Your task to perform on an android device: Go to eBay Image 0: 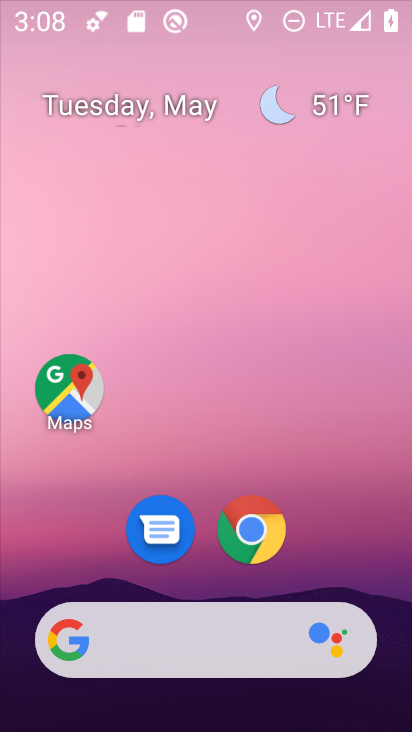
Step 0: drag from (182, 550) to (242, 95)
Your task to perform on an android device: Go to eBay Image 1: 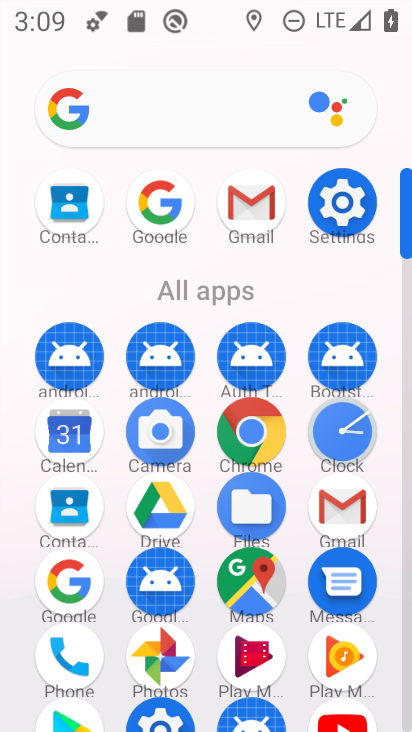
Step 1: click (250, 434)
Your task to perform on an android device: Go to eBay Image 2: 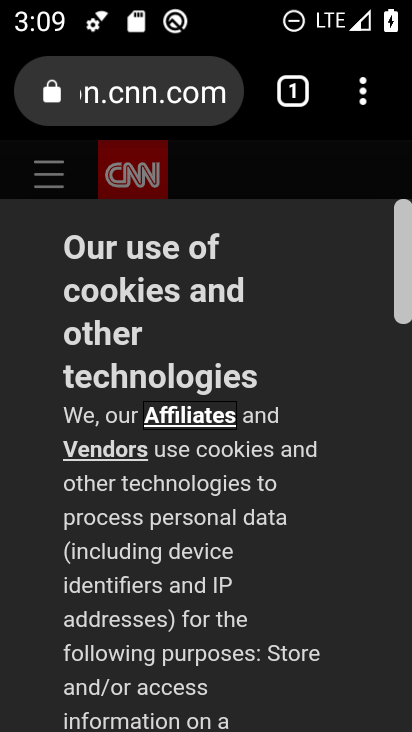
Step 2: click (296, 97)
Your task to perform on an android device: Go to eBay Image 3: 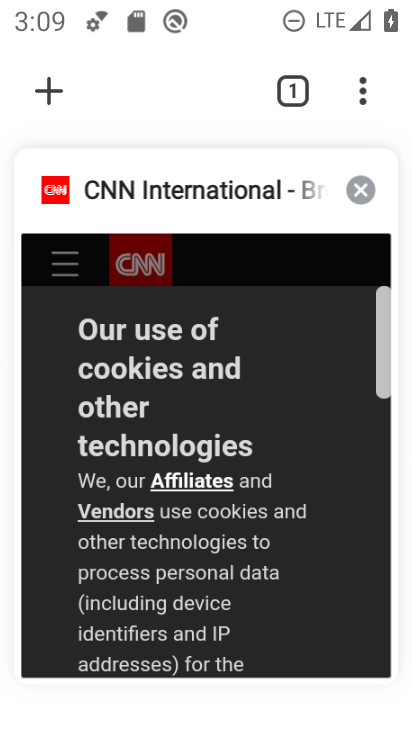
Step 3: click (48, 94)
Your task to perform on an android device: Go to eBay Image 4: 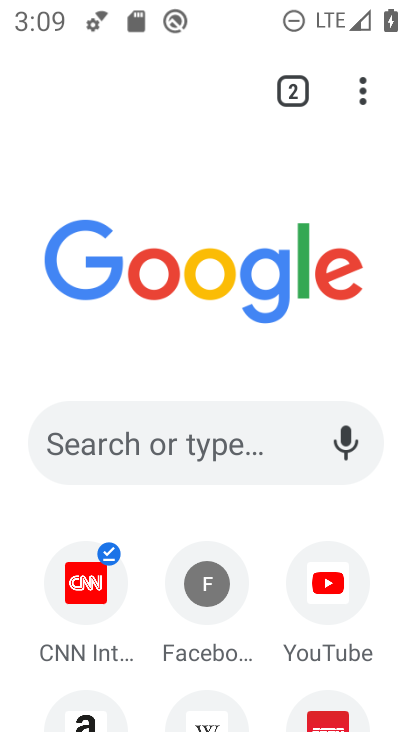
Step 4: drag from (170, 629) to (198, 312)
Your task to perform on an android device: Go to eBay Image 5: 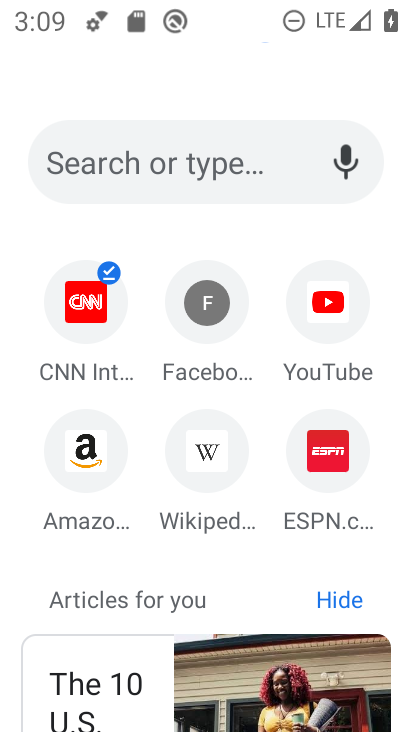
Step 5: click (150, 153)
Your task to perform on an android device: Go to eBay Image 6: 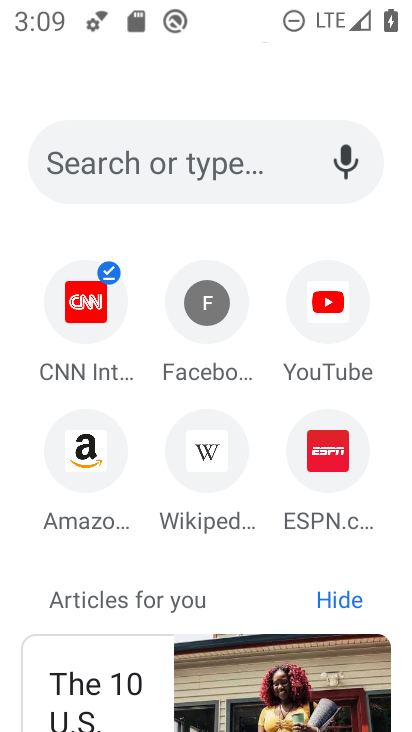
Step 6: type "ebay"
Your task to perform on an android device: Go to eBay Image 7: 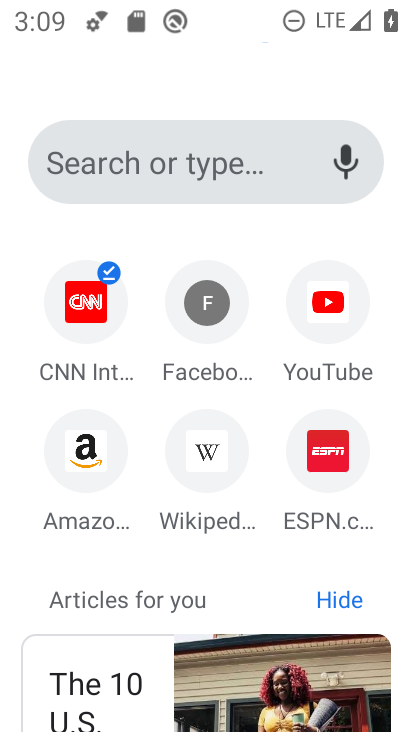
Step 7: click (143, 162)
Your task to perform on an android device: Go to eBay Image 8: 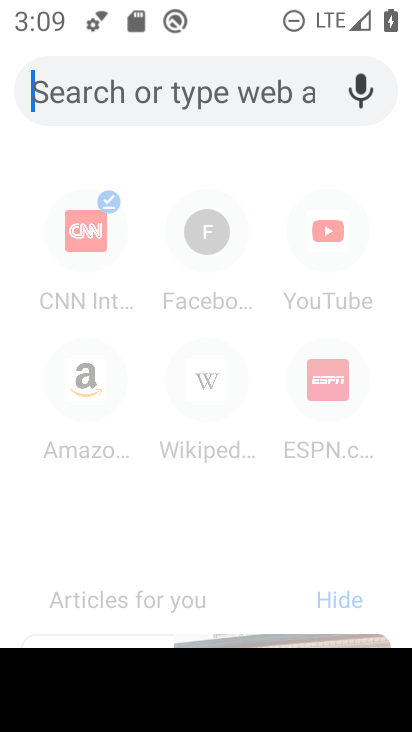
Step 8: type "ebay"
Your task to perform on an android device: Go to eBay Image 9: 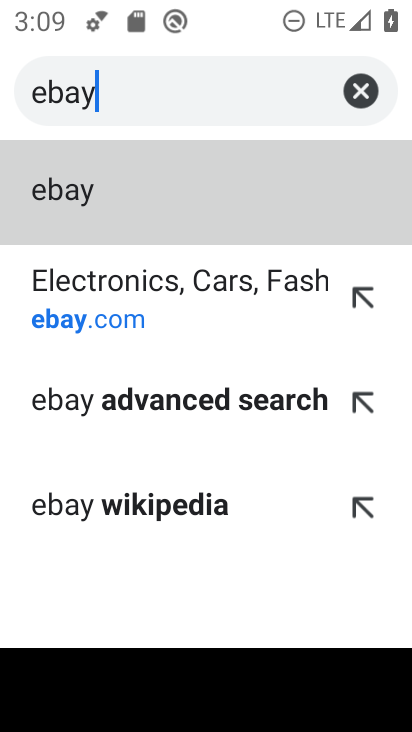
Step 9: click (86, 312)
Your task to perform on an android device: Go to eBay Image 10: 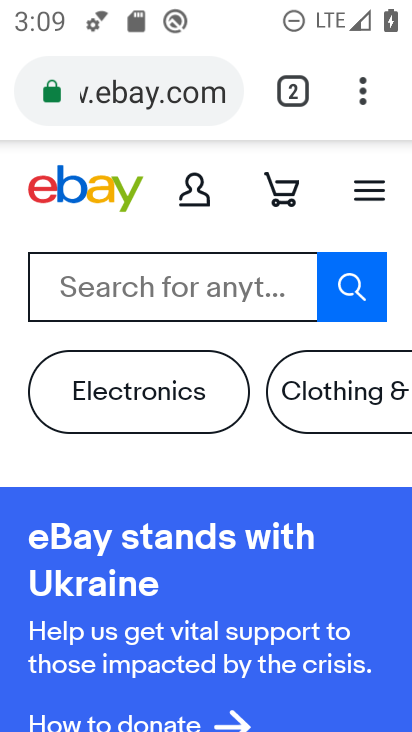
Step 10: task complete